Your task to perform on an android device: Search for seafood restaurants on Google Maps Image 0: 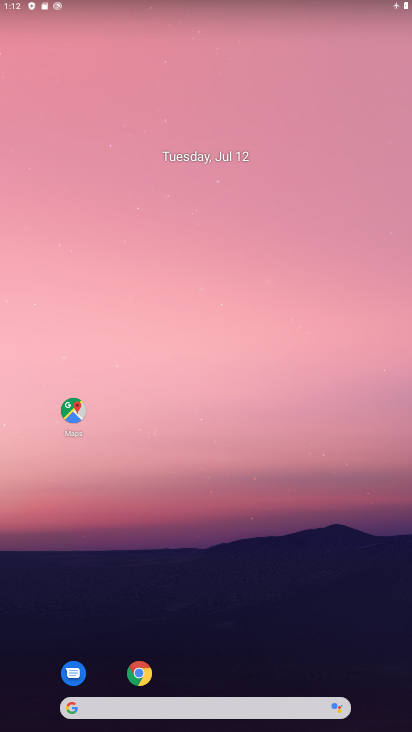
Step 0: drag from (317, 659) to (257, 216)
Your task to perform on an android device: Search for seafood restaurants on Google Maps Image 1: 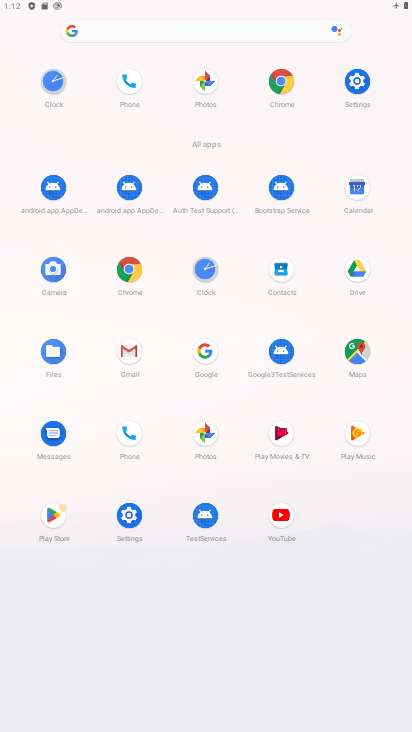
Step 1: click (356, 347)
Your task to perform on an android device: Search for seafood restaurants on Google Maps Image 2: 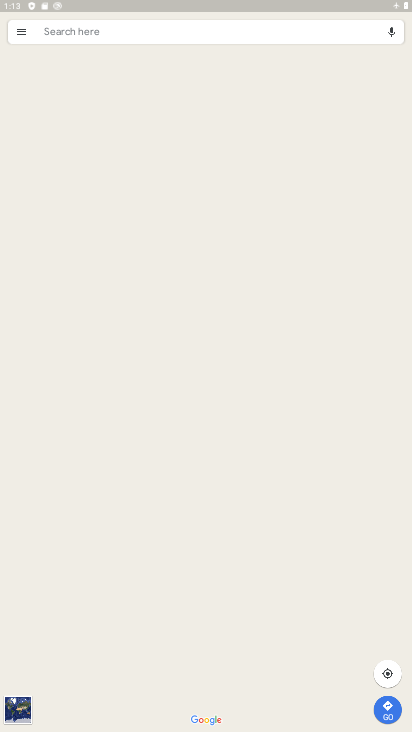
Step 2: click (201, 28)
Your task to perform on an android device: Search for seafood restaurants on Google Maps Image 3: 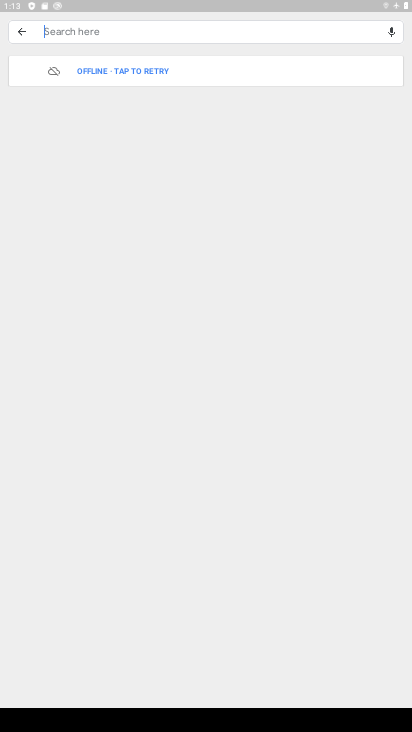
Step 3: click (170, 31)
Your task to perform on an android device: Search for seafood restaurants on Google Maps Image 4: 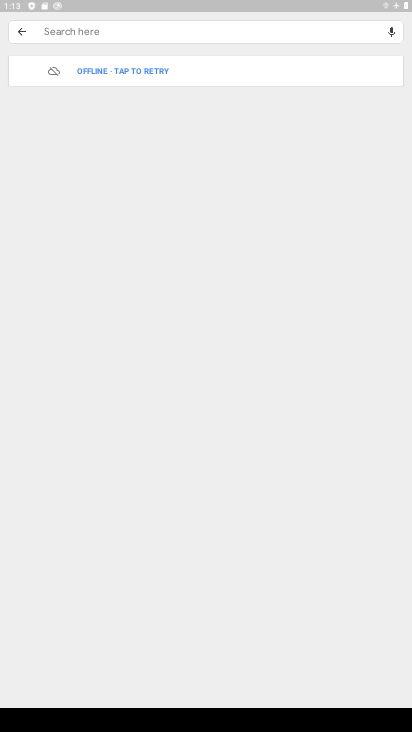
Step 4: type "seafood restaurants "
Your task to perform on an android device: Search for seafood restaurants on Google Maps Image 5: 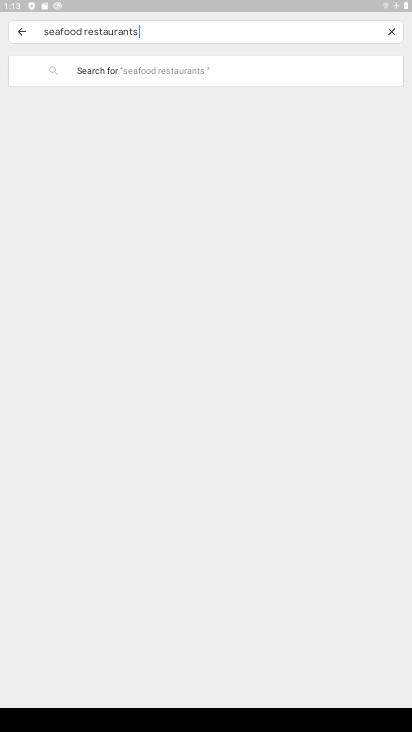
Step 5: click (181, 61)
Your task to perform on an android device: Search for seafood restaurants on Google Maps Image 6: 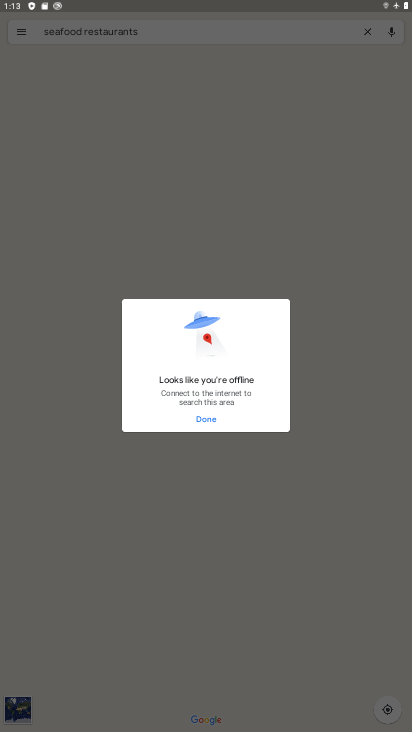
Step 6: click (233, 422)
Your task to perform on an android device: Search for seafood restaurants on Google Maps Image 7: 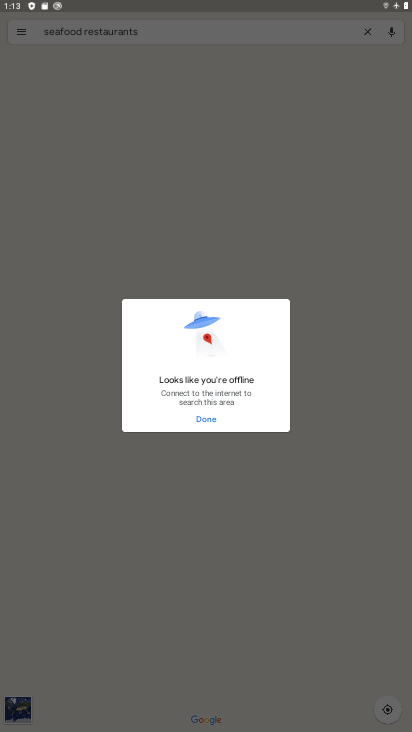
Step 7: task complete